Your task to perform on an android device: Go to accessibility settings Image 0: 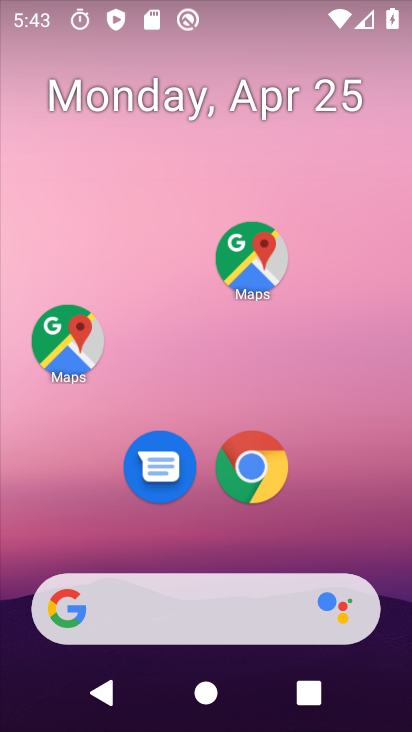
Step 0: drag from (284, 490) to (327, 16)
Your task to perform on an android device: Go to accessibility settings Image 1: 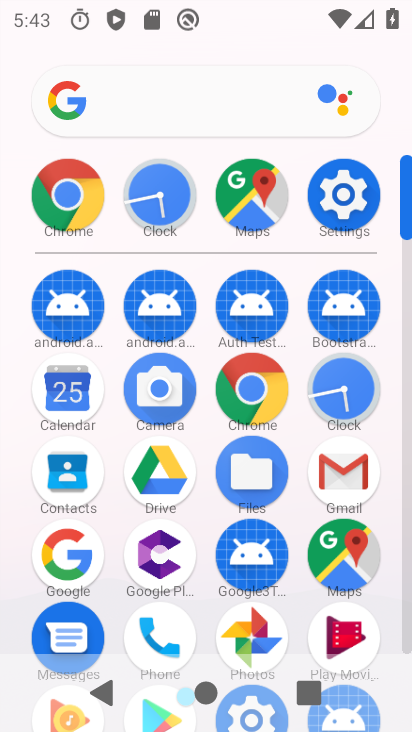
Step 1: drag from (301, 600) to (295, 211)
Your task to perform on an android device: Go to accessibility settings Image 2: 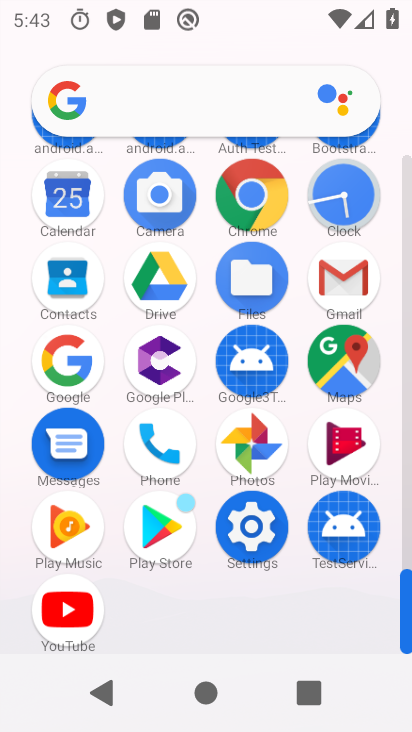
Step 2: click (258, 532)
Your task to perform on an android device: Go to accessibility settings Image 3: 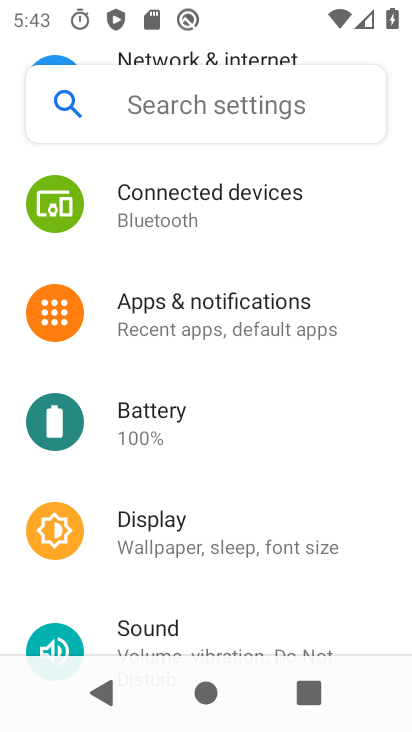
Step 3: drag from (305, 542) to (267, 161)
Your task to perform on an android device: Go to accessibility settings Image 4: 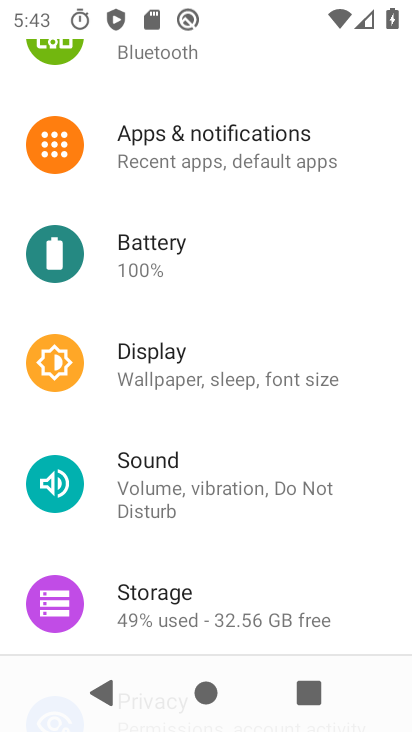
Step 4: drag from (226, 624) to (277, 112)
Your task to perform on an android device: Go to accessibility settings Image 5: 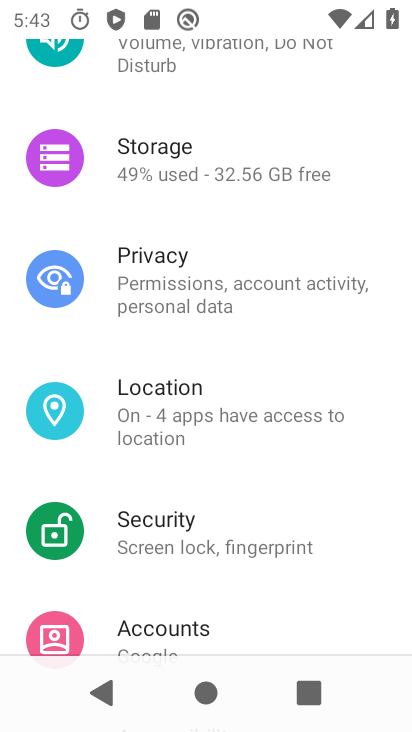
Step 5: drag from (233, 635) to (313, 102)
Your task to perform on an android device: Go to accessibility settings Image 6: 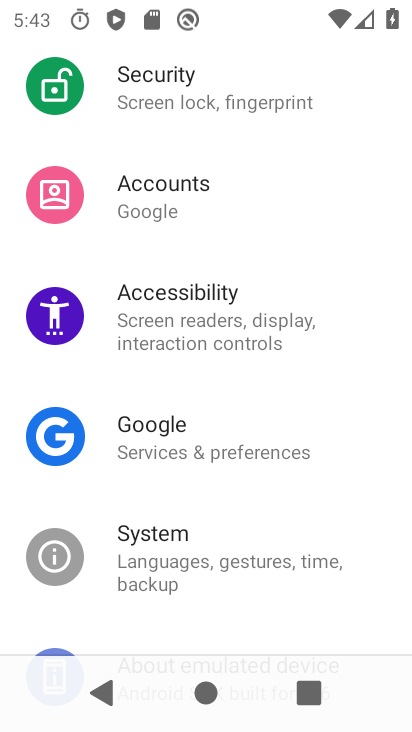
Step 6: click (281, 331)
Your task to perform on an android device: Go to accessibility settings Image 7: 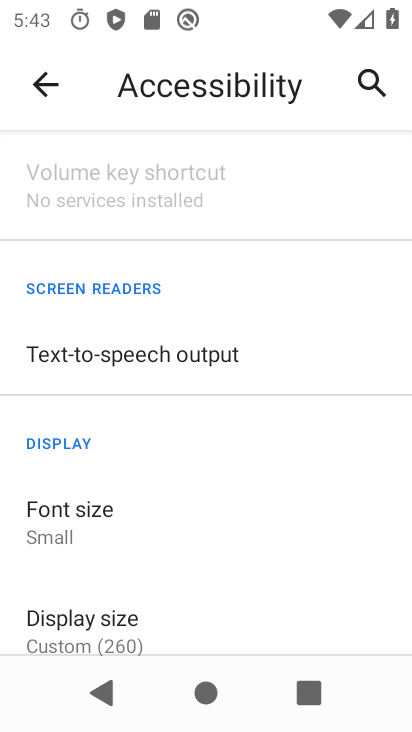
Step 7: task complete